Your task to perform on an android device: open device folders in google photos Image 0: 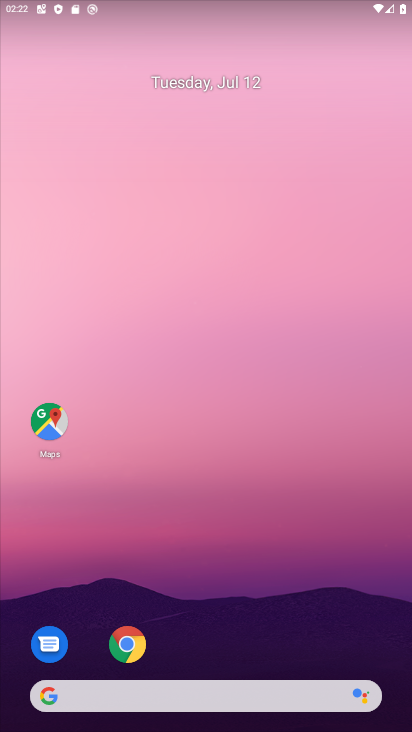
Step 0: drag from (215, 687) to (221, 105)
Your task to perform on an android device: open device folders in google photos Image 1: 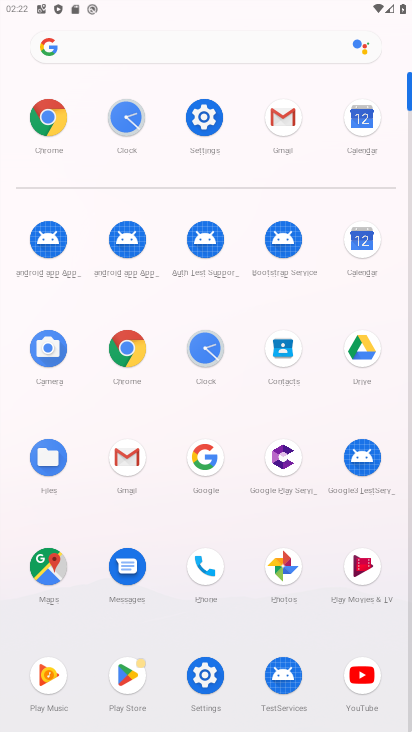
Step 1: click (291, 558)
Your task to perform on an android device: open device folders in google photos Image 2: 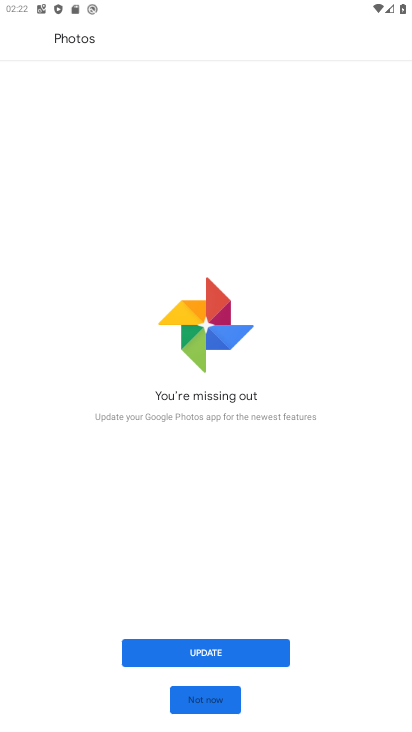
Step 2: click (217, 687)
Your task to perform on an android device: open device folders in google photos Image 3: 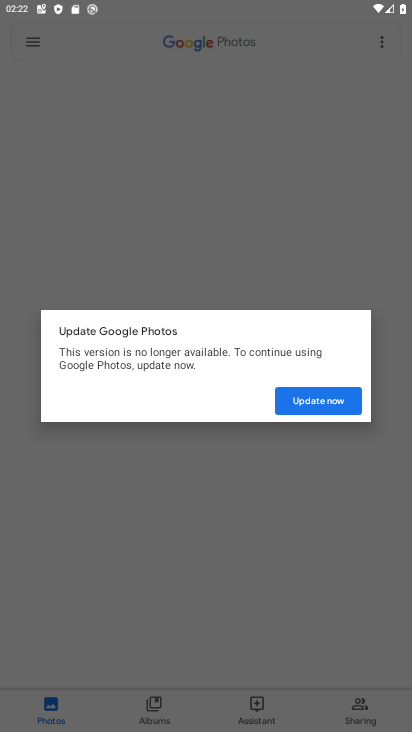
Step 3: click (325, 395)
Your task to perform on an android device: open device folders in google photos Image 4: 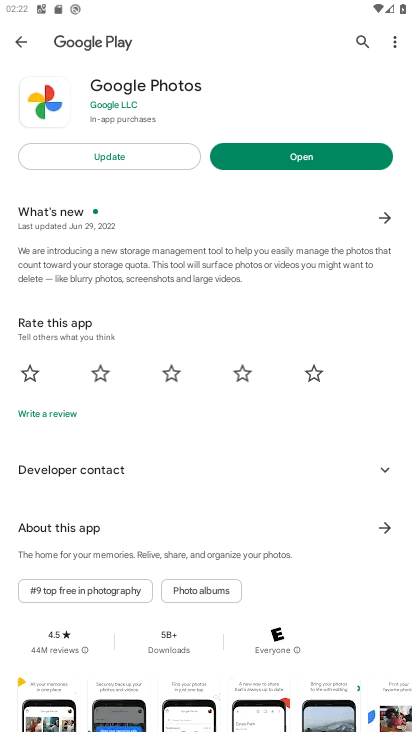
Step 4: click (266, 157)
Your task to perform on an android device: open device folders in google photos Image 5: 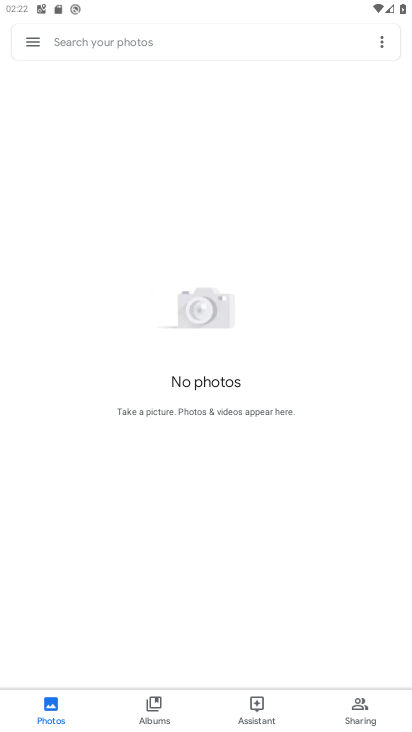
Step 5: drag from (32, 41) to (60, 96)
Your task to perform on an android device: open device folders in google photos Image 6: 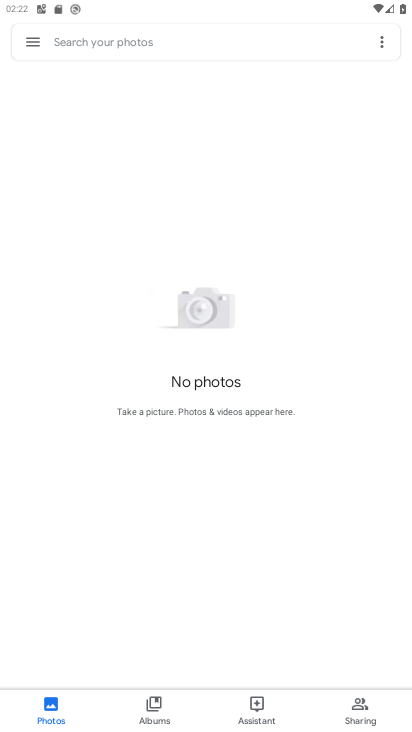
Step 6: click (31, 34)
Your task to perform on an android device: open device folders in google photos Image 7: 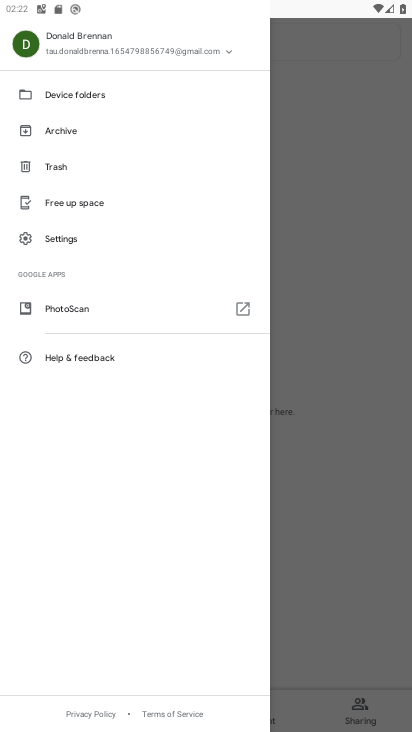
Step 7: click (77, 81)
Your task to perform on an android device: open device folders in google photos Image 8: 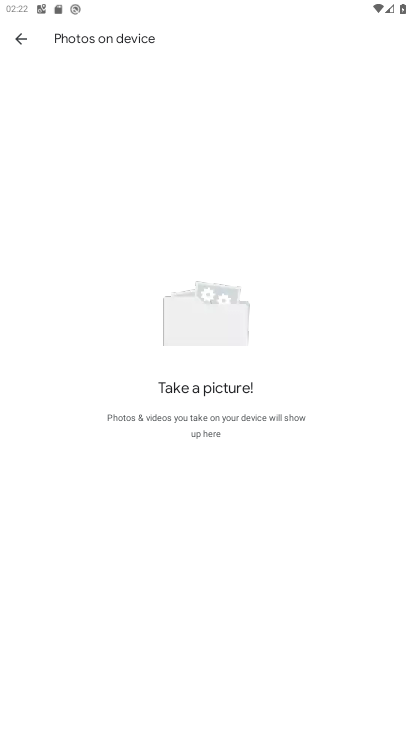
Step 8: task complete